Your task to perform on an android device: uninstall "Nova Launcher" Image 0: 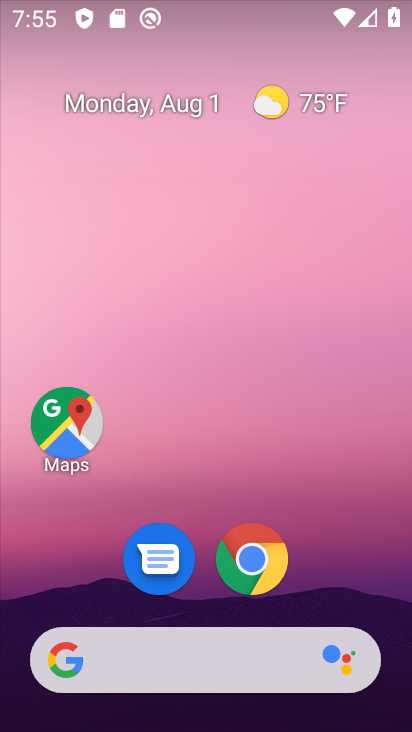
Step 0: drag from (173, 635) to (219, 160)
Your task to perform on an android device: uninstall "Nova Launcher" Image 1: 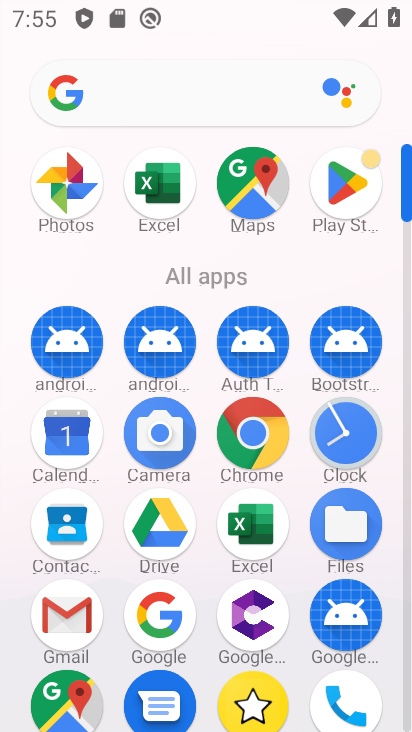
Step 1: click (343, 192)
Your task to perform on an android device: uninstall "Nova Launcher" Image 2: 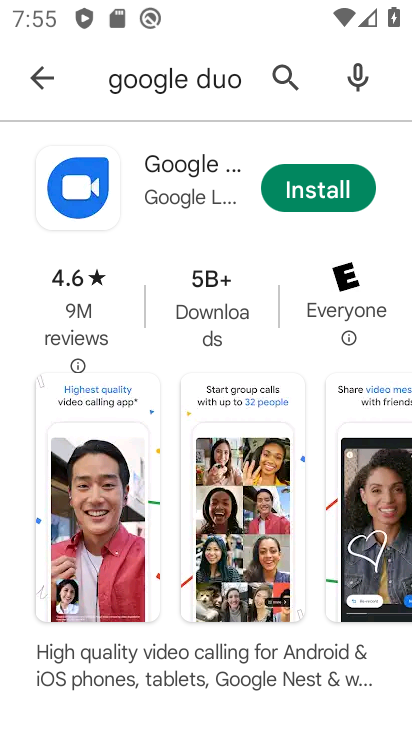
Step 2: click (287, 86)
Your task to perform on an android device: uninstall "Nova Launcher" Image 3: 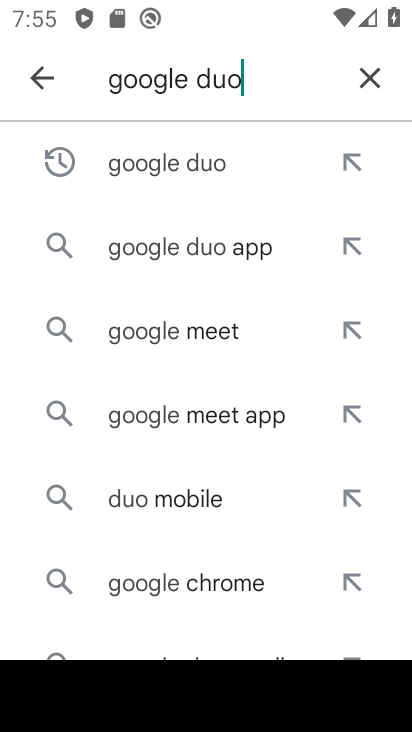
Step 3: click (376, 78)
Your task to perform on an android device: uninstall "Nova Launcher" Image 4: 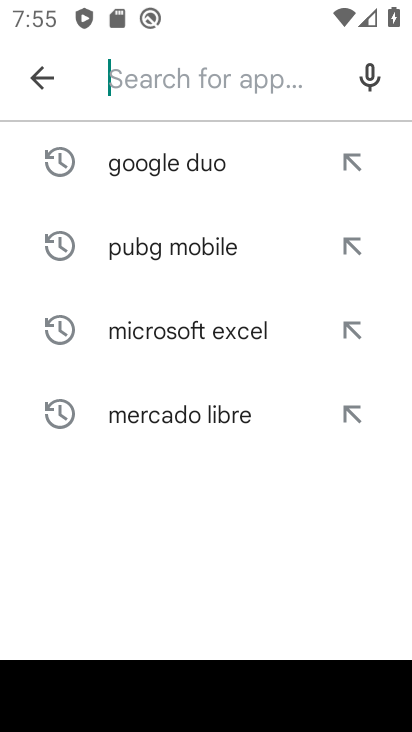
Step 4: type "Nova Launcher"
Your task to perform on an android device: uninstall "Nova Launcher" Image 5: 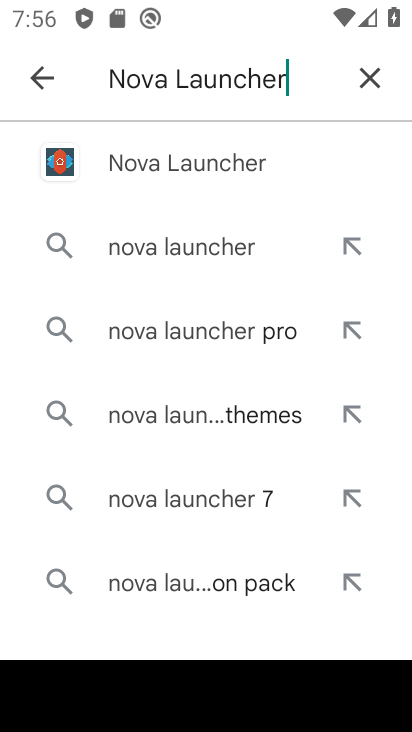
Step 5: click (191, 153)
Your task to perform on an android device: uninstall "Nova Launcher" Image 6: 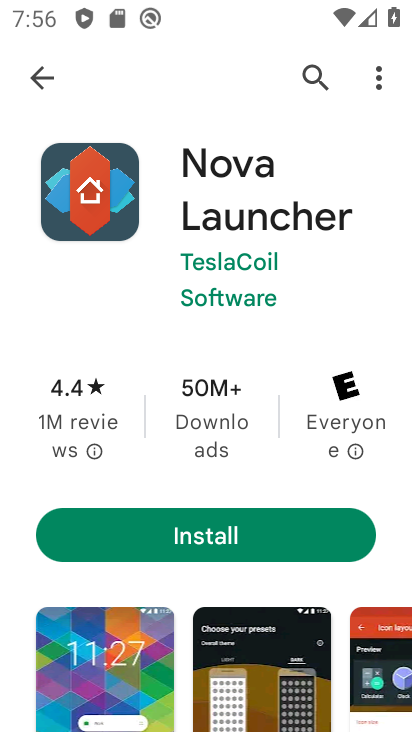
Step 6: task complete